Your task to perform on an android device: toggle location history Image 0: 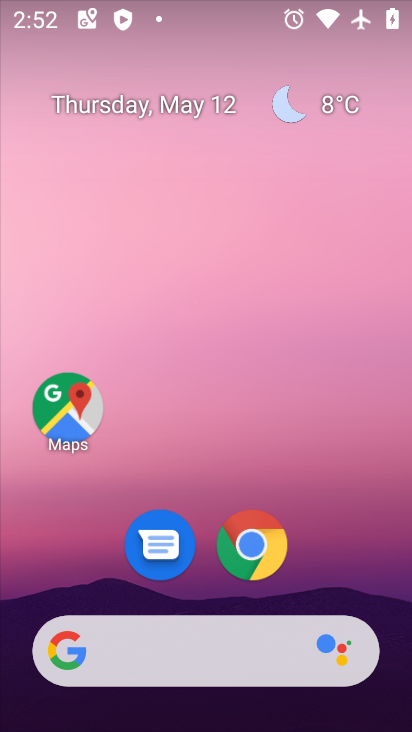
Step 0: click (62, 405)
Your task to perform on an android device: toggle location history Image 1: 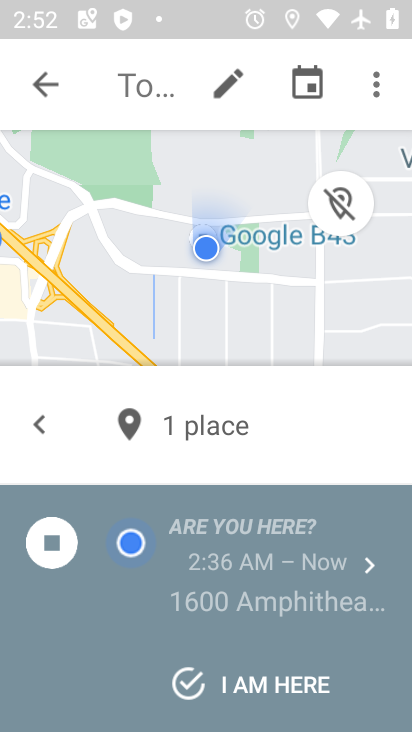
Step 1: press back button
Your task to perform on an android device: toggle location history Image 2: 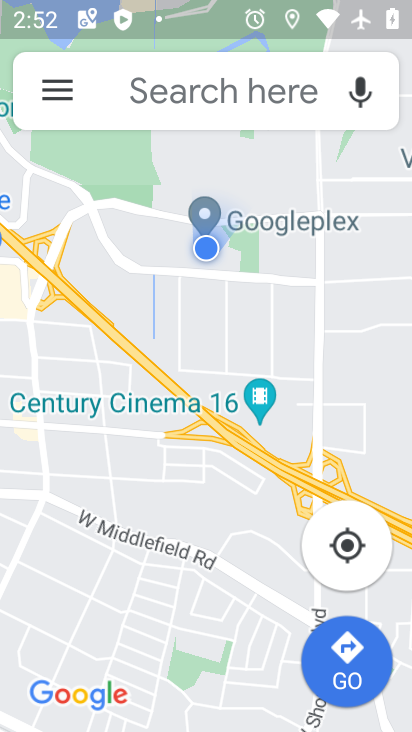
Step 2: click (49, 84)
Your task to perform on an android device: toggle location history Image 3: 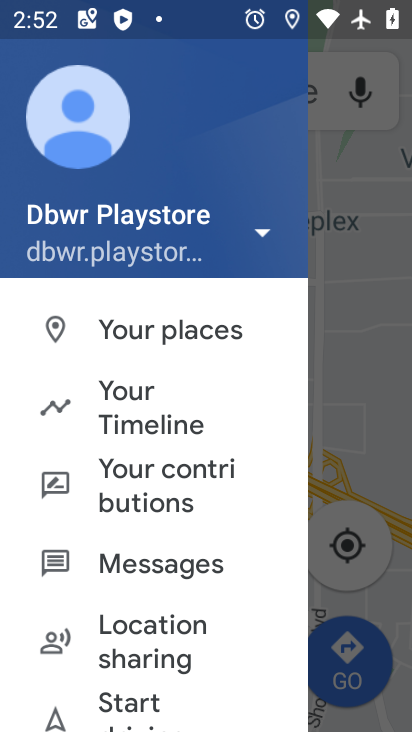
Step 3: drag from (178, 547) to (177, 266)
Your task to perform on an android device: toggle location history Image 4: 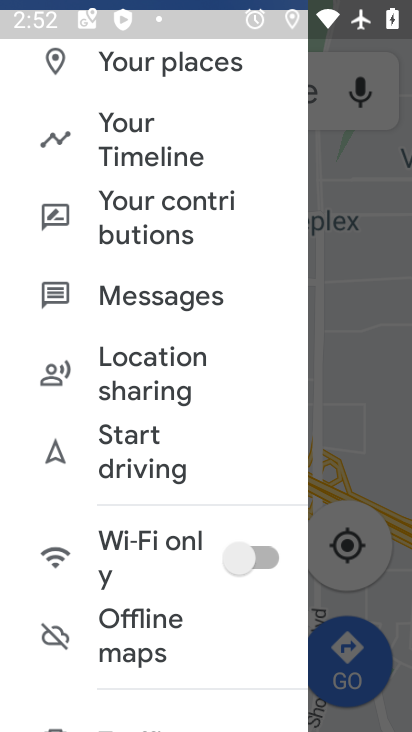
Step 4: drag from (176, 617) to (169, 267)
Your task to perform on an android device: toggle location history Image 5: 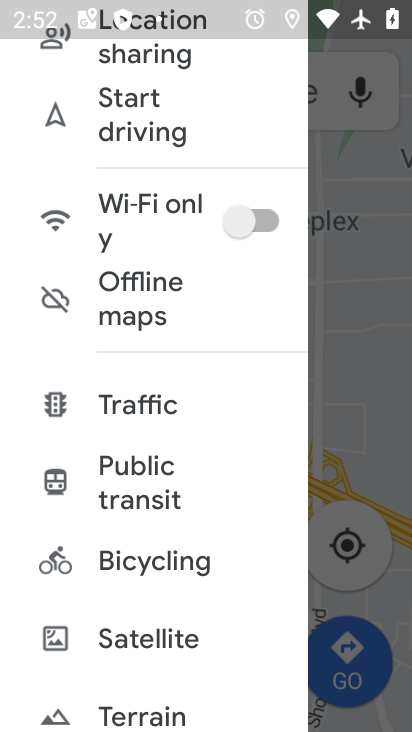
Step 5: drag from (164, 600) to (164, 225)
Your task to perform on an android device: toggle location history Image 6: 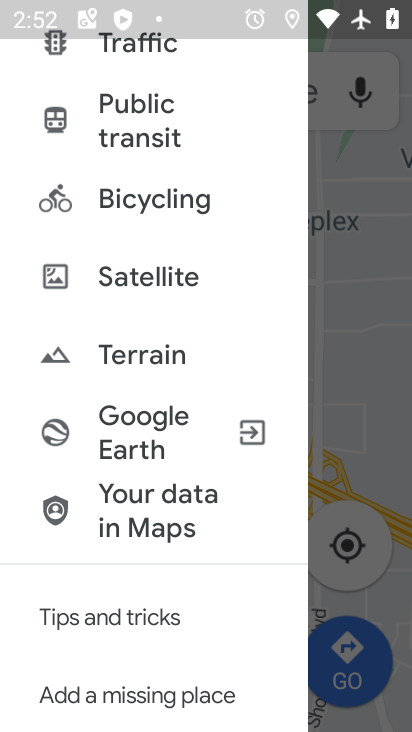
Step 6: drag from (187, 609) to (170, 92)
Your task to perform on an android device: toggle location history Image 7: 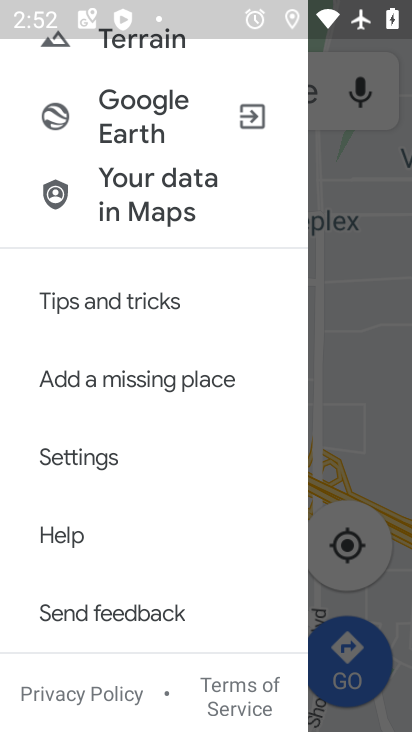
Step 7: click (78, 449)
Your task to perform on an android device: toggle location history Image 8: 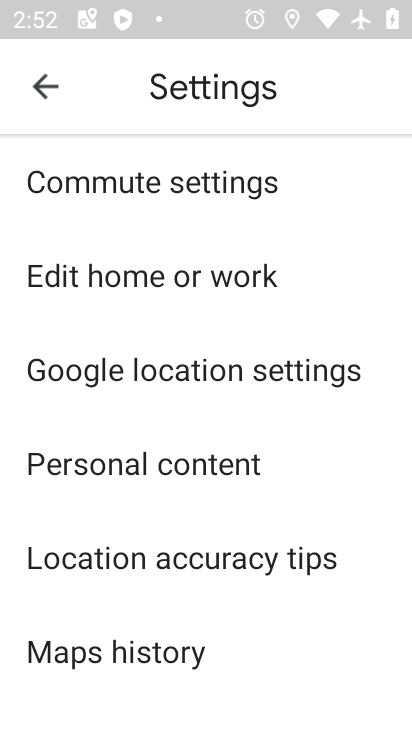
Step 8: click (119, 466)
Your task to perform on an android device: toggle location history Image 9: 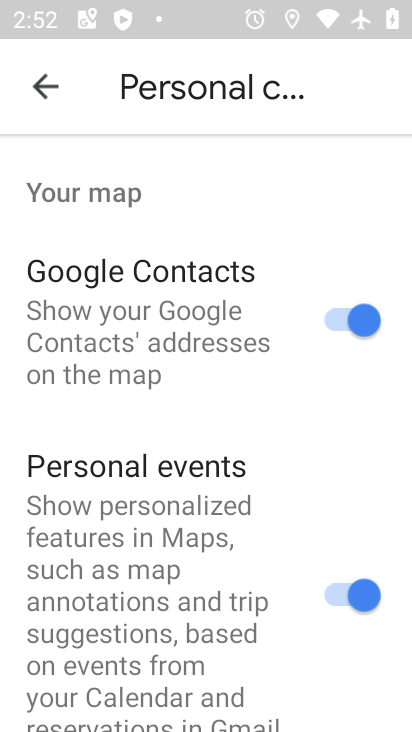
Step 9: drag from (283, 656) to (222, 198)
Your task to perform on an android device: toggle location history Image 10: 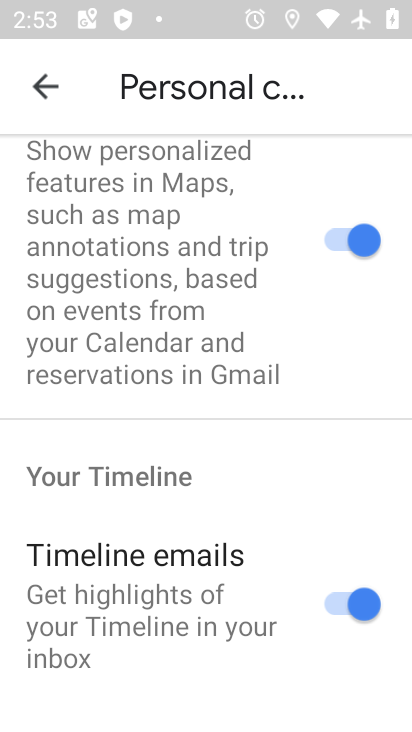
Step 10: drag from (234, 609) to (221, 219)
Your task to perform on an android device: toggle location history Image 11: 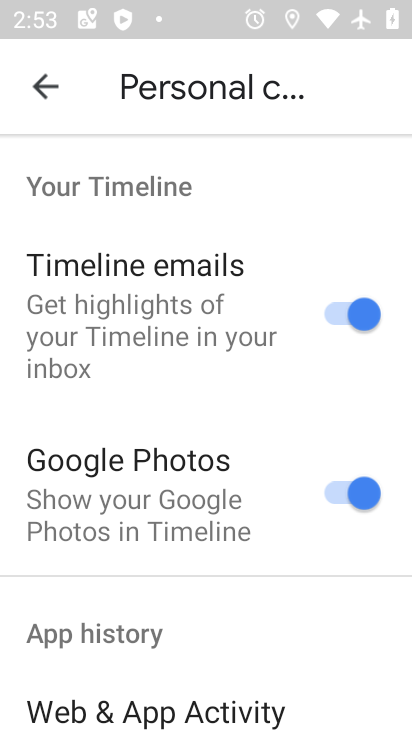
Step 11: drag from (251, 631) to (249, 214)
Your task to perform on an android device: toggle location history Image 12: 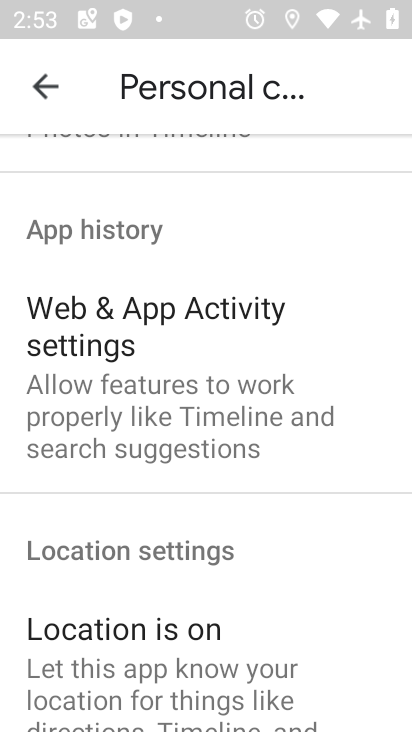
Step 12: drag from (263, 639) to (254, 229)
Your task to perform on an android device: toggle location history Image 13: 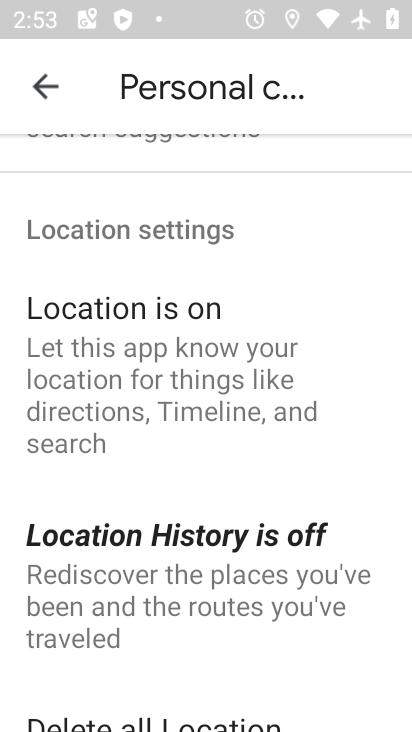
Step 13: click (99, 571)
Your task to perform on an android device: toggle location history Image 14: 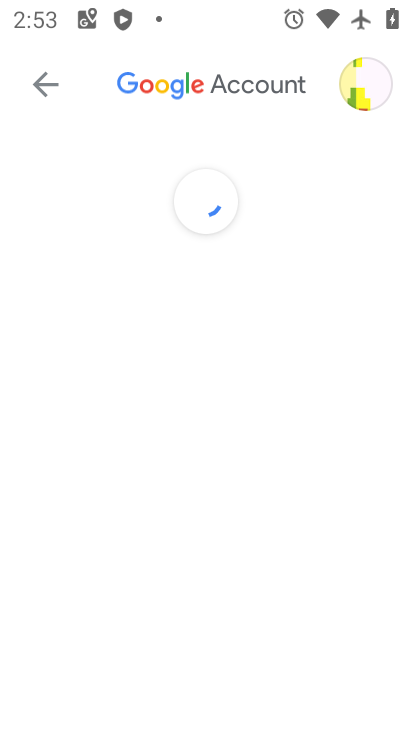
Step 14: drag from (312, 633) to (161, 171)
Your task to perform on an android device: toggle location history Image 15: 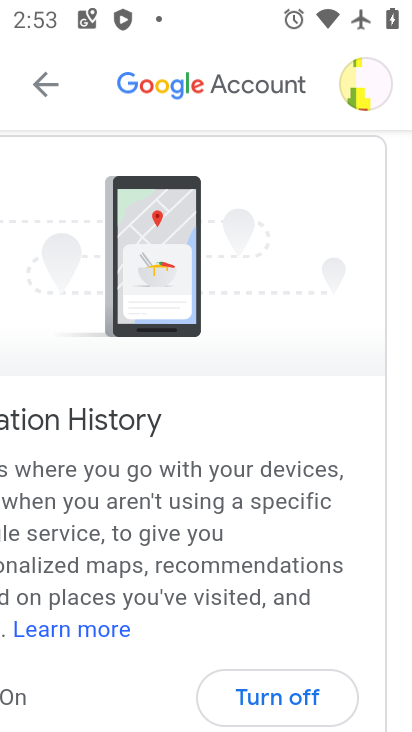
Step 15: click (267, 700)
Your task to perform on an android device: toggle location history Image 16: 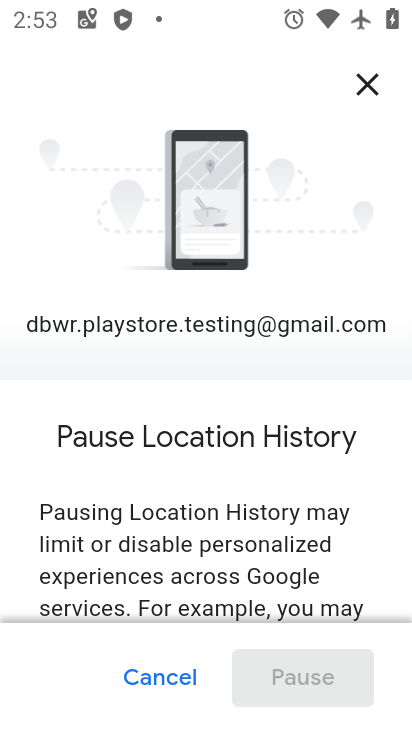
Step 16: drag from (285, 561) to (169, 124)
Your task to perform on an android device: toggle location history Image 17: 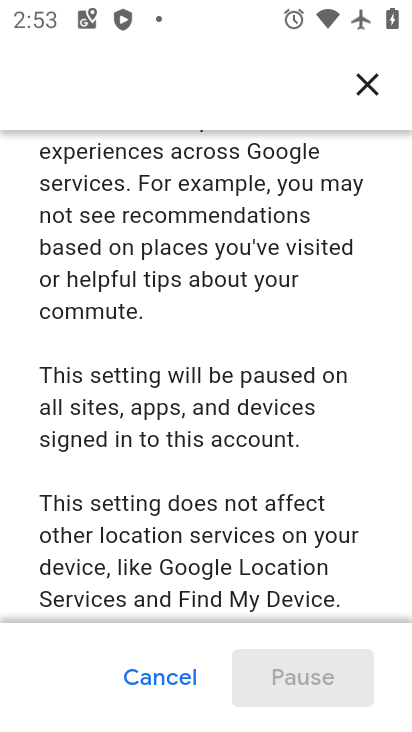
Step 17: drag from (287, 554) to (202, 123)
Your task to perform on an android device: toggle location history Image 18: 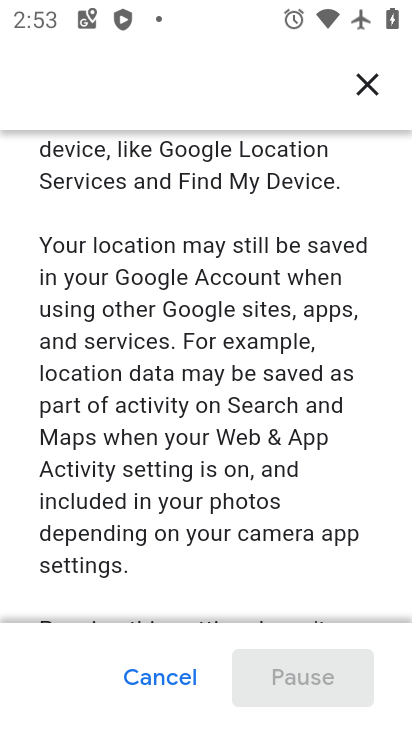
Step 18: drag from (256, 564) to (250, 125)
Your task to perform on an android device: toggle location history Image 19: 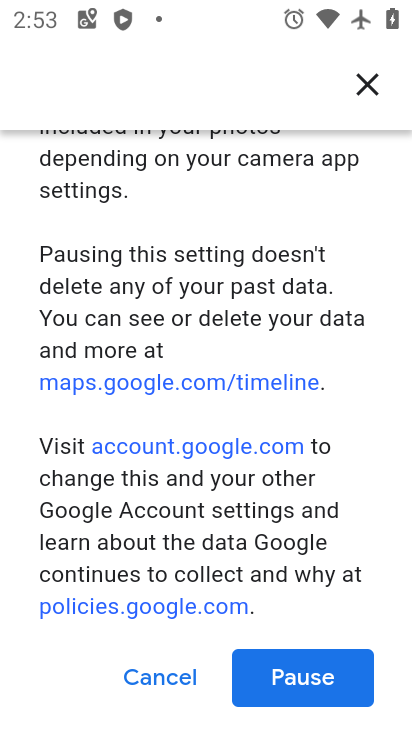
Step 19: drag from (289, 602) to (167, 119)
Your task to perform on an android device: toggle location history Image 20: 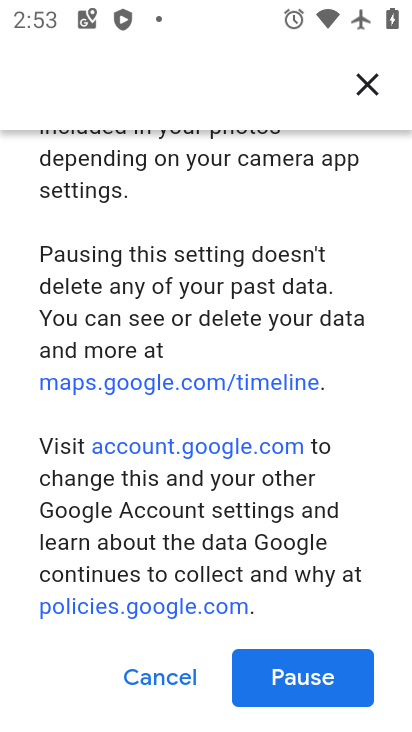
Step 20: click (294, 683)
Your task to perform on an android device: toggle location history Image 21: 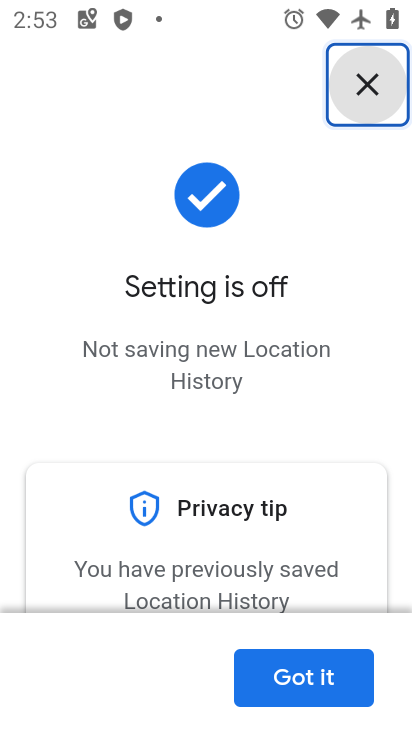
Step 21: click (298, 682)
Your task to perform on an android device: toggle location history Image 22: 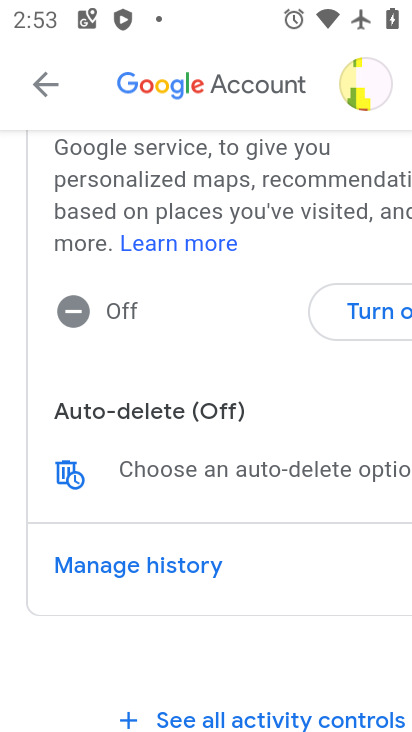
Step 22: task complete